Your task to perform on an android device: How do I get to the nearest Burger King? Image 0: 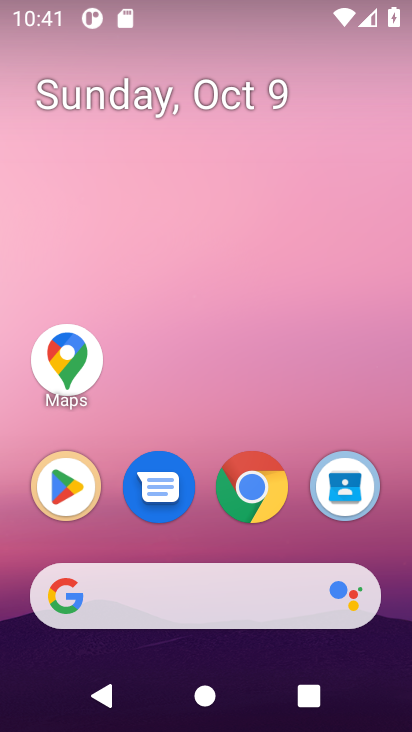
Step 0: click (253, 502)
Your task to perform on an android device: How do I get to the nearest Burger King? Image 1: 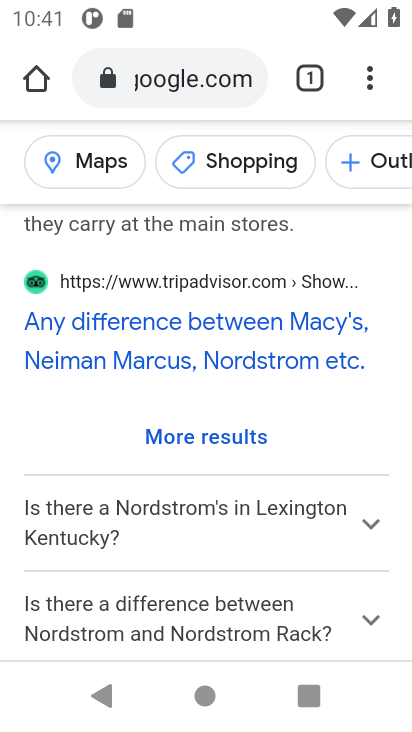
Step 1: click (205, 86)
Your task to perform on an android device: How do I get to the nearest Burger King? Image 2: 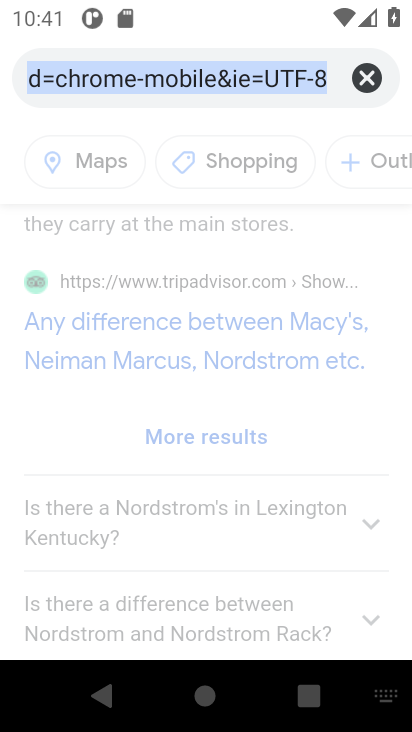
Step 2: type "nearest burger king"
Your task to perform on an android device: How do I get to the nearest Burger King? Image 3: 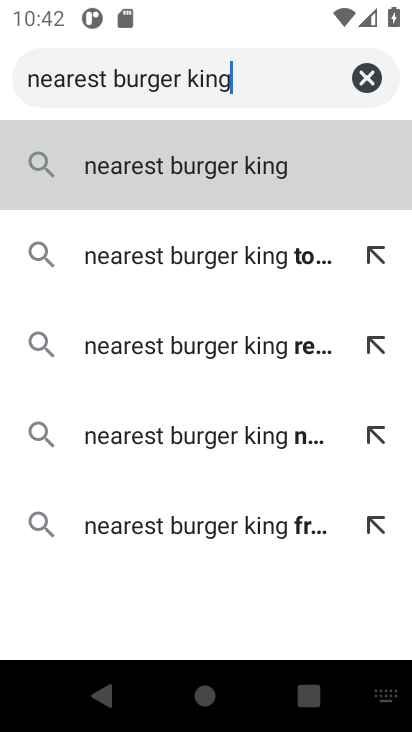
Step 3: press enter
Your task to perform on an android device: How do I get to the nearest Burger King? Image 4: 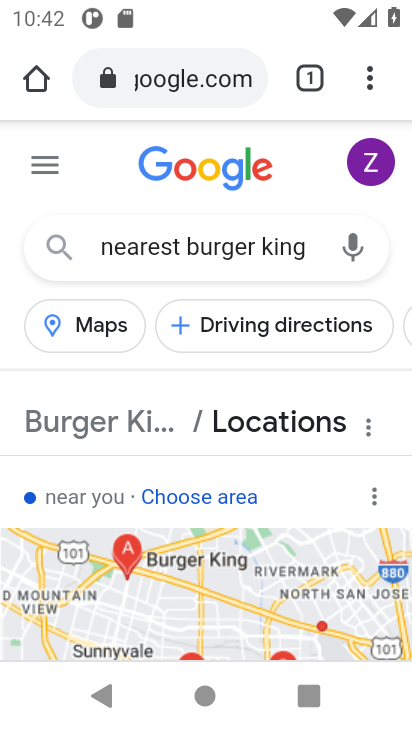
Step 4: drag from (283, 470) to (242, 122)
Your task to perform on an android device: How do I get to the nearest Burger King? Image 5: 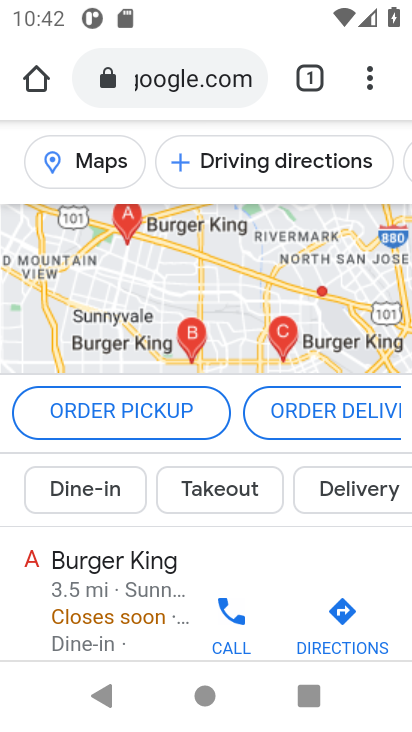
Step 5: drag from (264, 525) to (242, 215)
Your task to perform on an android device: How do I get to the nearest Burger King? Image 6: 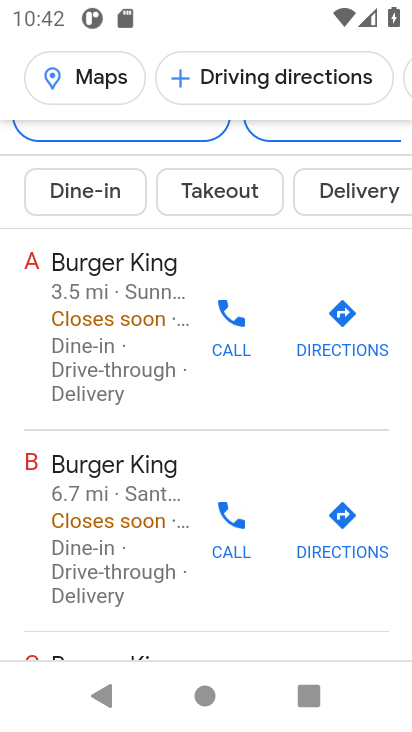
Step 6: drag from (228, 578) to (205, 341)
Your task to perform on an android device: How do I get to the nearest Burger King? Image 7: 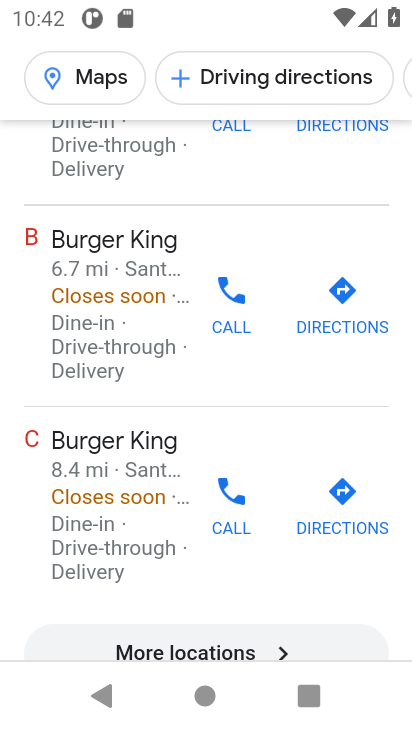
Step 7: drag from (190, 562) to (166, 298)
Your task to perform on an android device: How do I get to the nearest Burger King? Image 8: 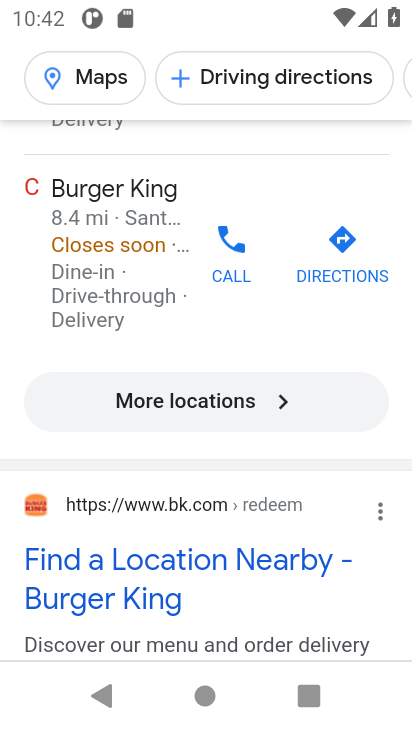
Step 8: drag from (213, 566) to (191, 295)
Your task to perform on an android device: How do I get to the nearest Burger King? Image 9: 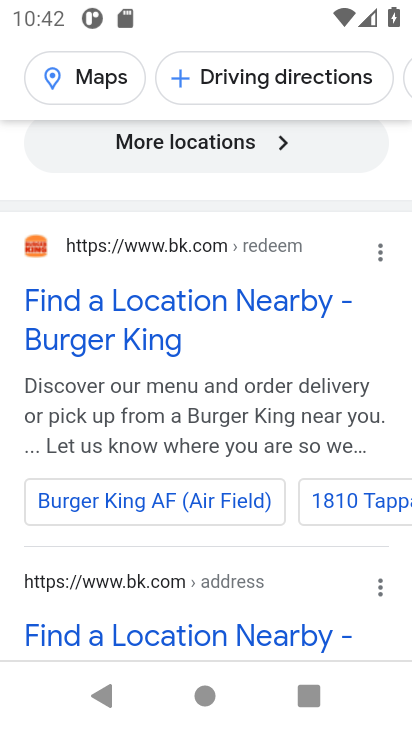
Step 9: click (96, 322)
Your task to perform on an android device: How do I get to the nearest Burger King? Image 10: 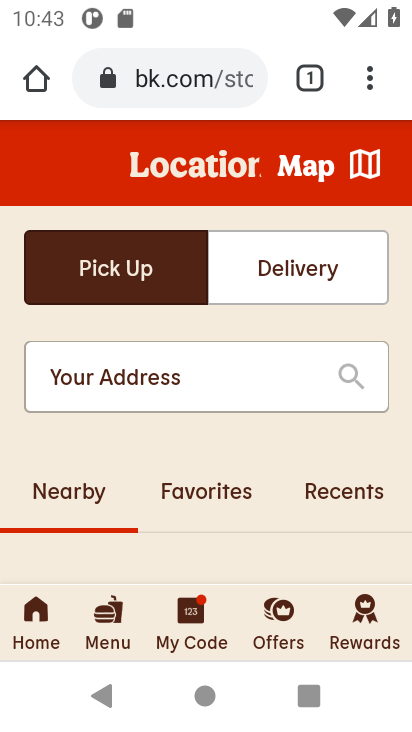
Step 10: drag from (167, 538) to (101, 198)
Your task to perform on an android device: How do I get to the nearest Burger King? Image 11: 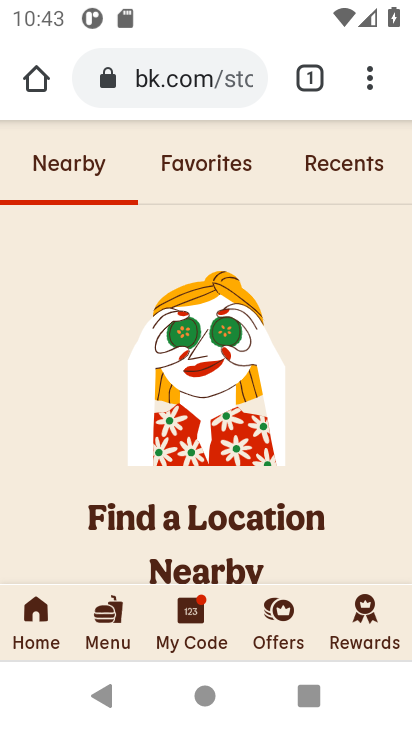
Step 11: drag from (175, 514) to (131, 262)
Your task to perform on an android device: How do I get to the nearest Burger King? Image 12: 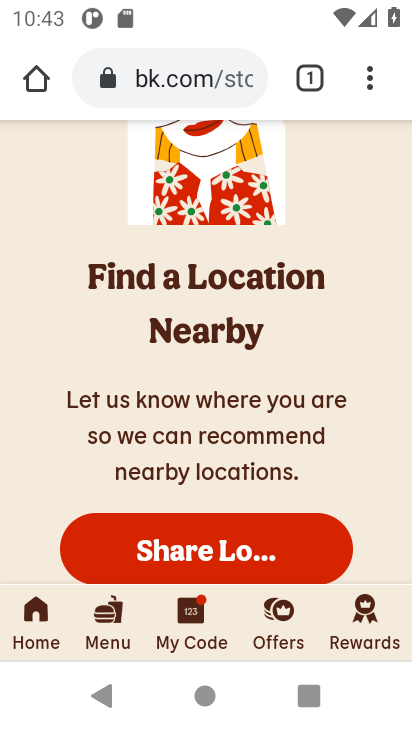
Step 12: drag from (180, 475) to (147, 224)
Your task to perform on an android device: How do I get to the nearest Burger King? Image 13: 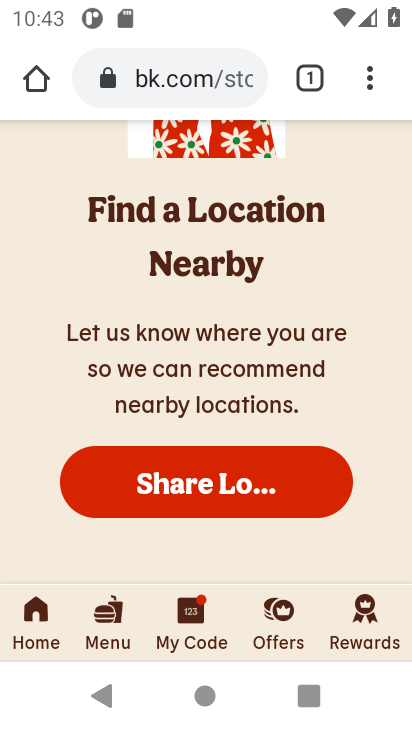
Step 13: drag from (204, 546) to (159, 299)
Your task to perform on an android device: How do I get to the nearest Burger King? Image 14: 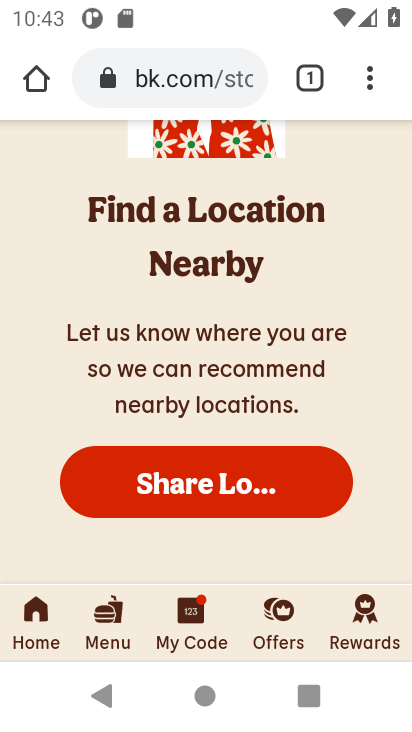
Step 14: drag from (293, 544) to (249, 261)
Your task to perform on an android device: How do I get to the nearest Burger King? Image 15: 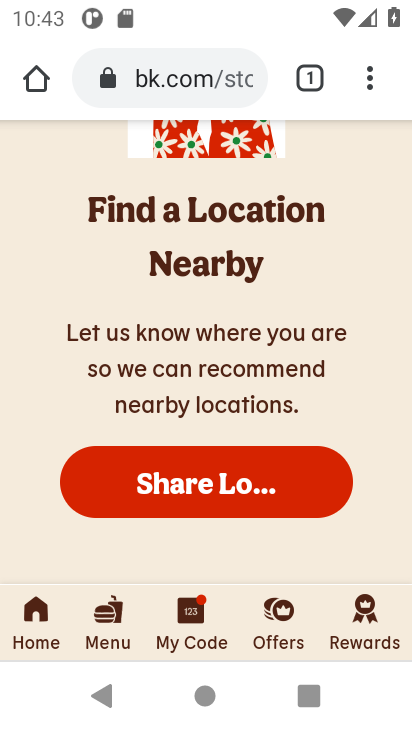
Step 15: click (222, 483)
Your task to perform on an android device: How do I get to the nearest Burger King? Image 16: 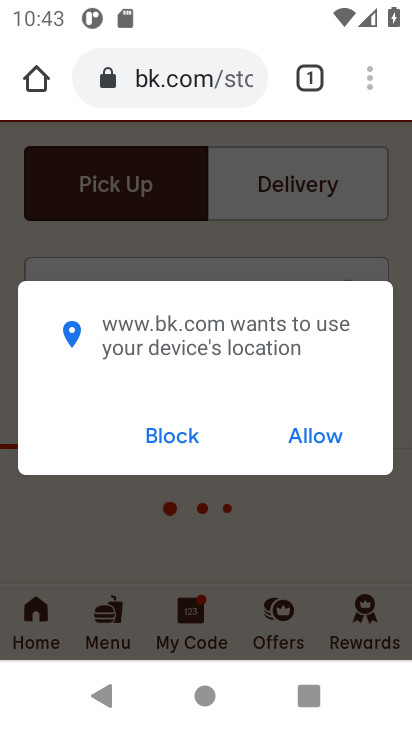
Step 16: click (314, 444)
Your task to perform on an android device: How do I get to the nearest Burger King? Image 17: 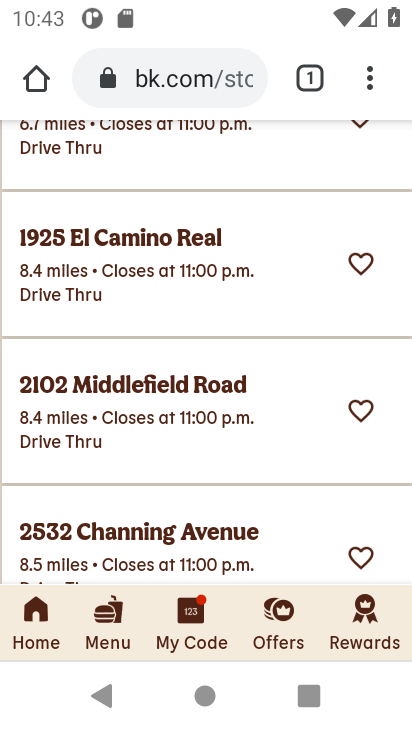
Step 17: task complete